Your task to perform on an android device: What's the weather going to be tomorrow? Image 0: 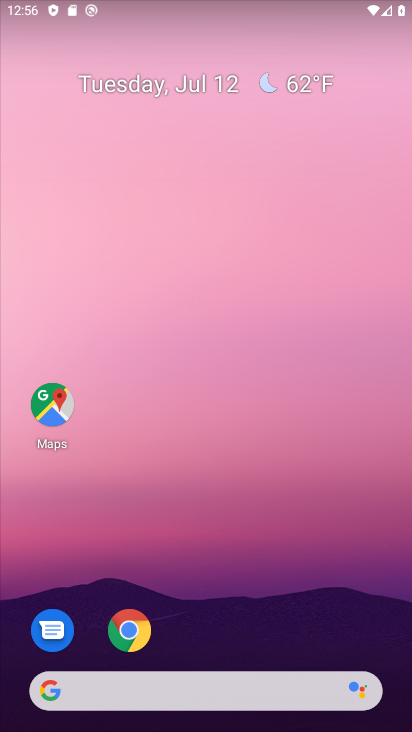
Step 0: drag from (242, 631) to (233, 107)
Your task to perform on an android device: What's the weather going to be tomorrow? Image 1: 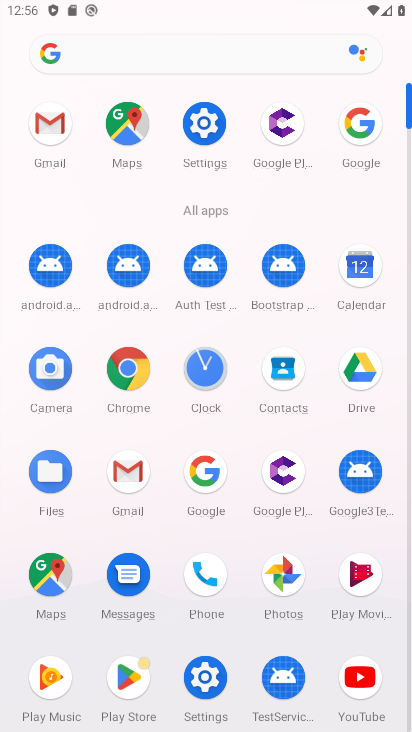
Step 1: click (359, 125)
Your task to perform on an android device: What's the weather going to be tomorrow? Image 2: 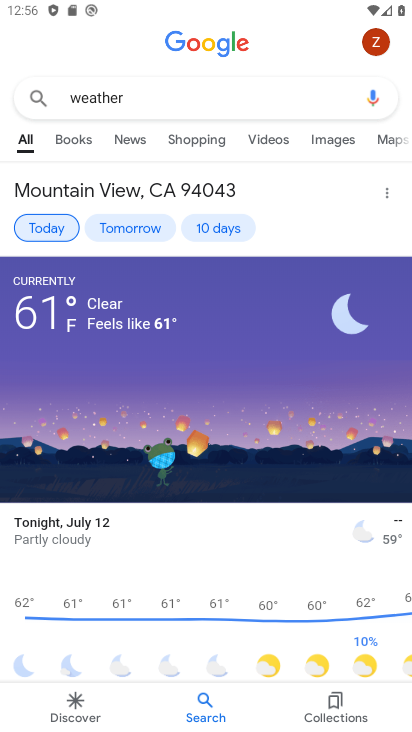
Step 2: click (212, 93)
Your task to perform on an android device: What's the weather going to be tomorrow? Image 3: 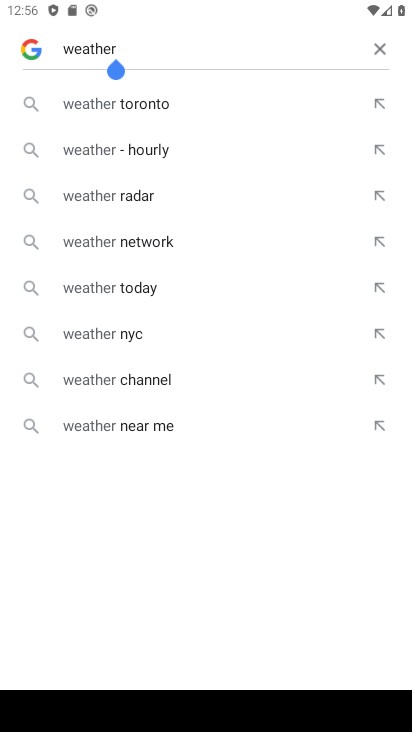
Step 3: click (383, 48)
Your task to perform on an android device: What's the weather going to be tomorrow? Image 4: 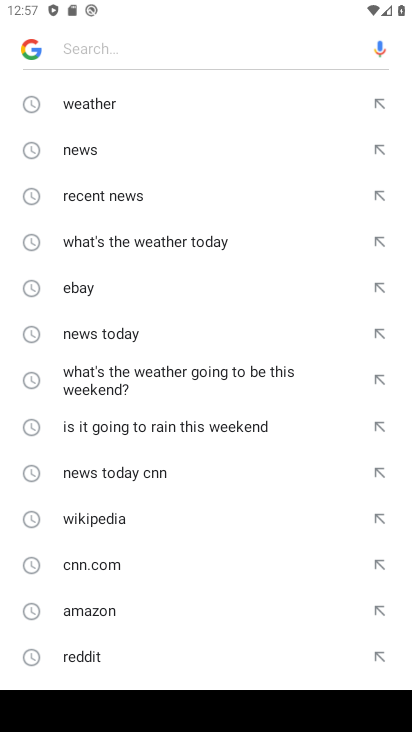
Step 4: type "whats the weather going to be tomorrow?"
Your task to perform on an android device: What's the weather going to be tomorrow? Image 5: 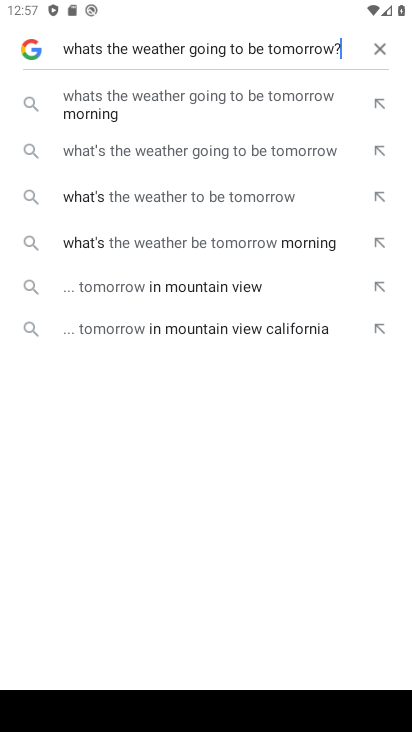
Step 5: click (272, 157)
Your task to perform on an android device: What's the weather going to be tomorrow? Image 6: 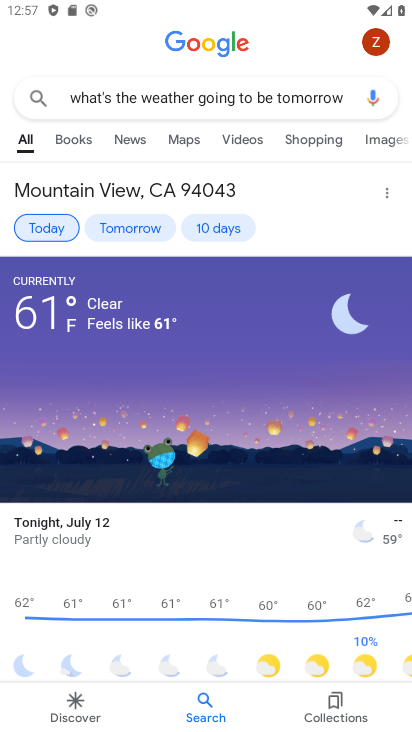
Step 6: task complete